Your task to perform on an android device: allow notifications from all sites in the chrome app Image 0: 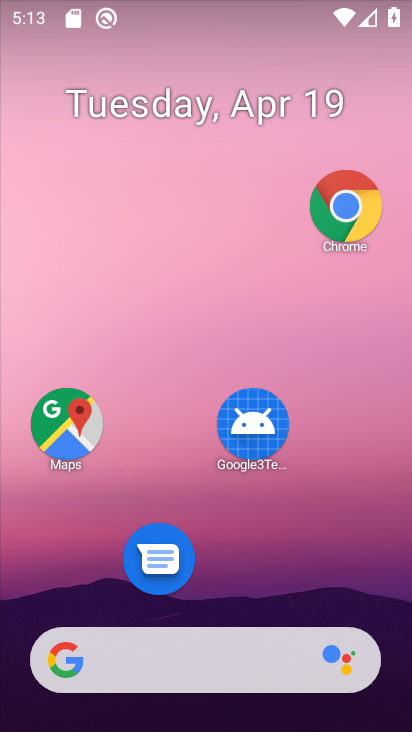
Step 0: drag from (268, 726) to (244, 167)
Your task to perform on an android device: allow notifications from all sites in the chrome app Image 1: 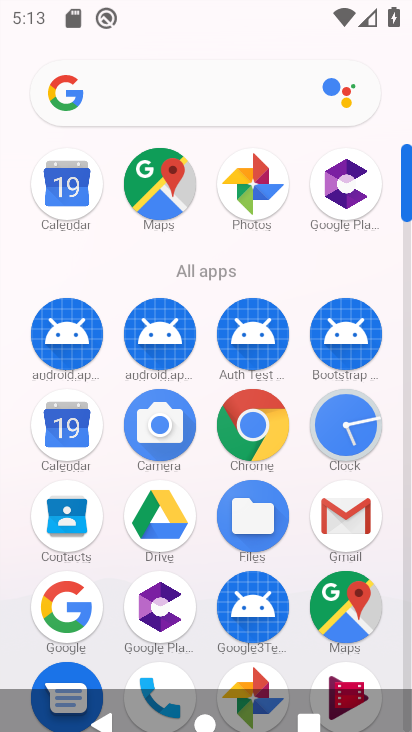
Step 1: click (245, 438)
Your task to perform on an android device: allow notifications from all sites in the chrome app Image 2: 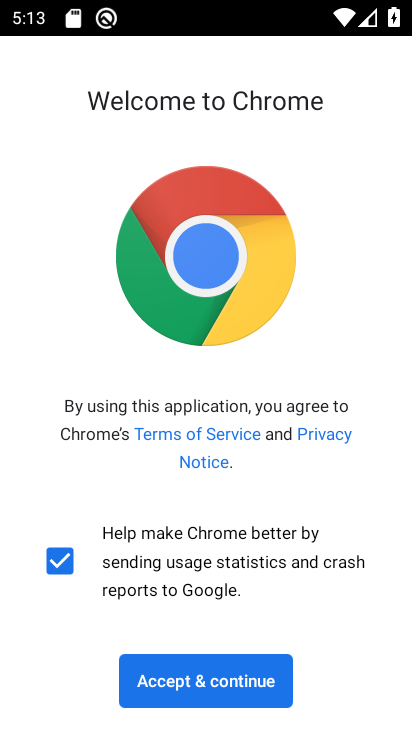
Step 2: click (230, 672)
Your task to perform on an android device: allow notifications from all sites in the chrome app Image 3: 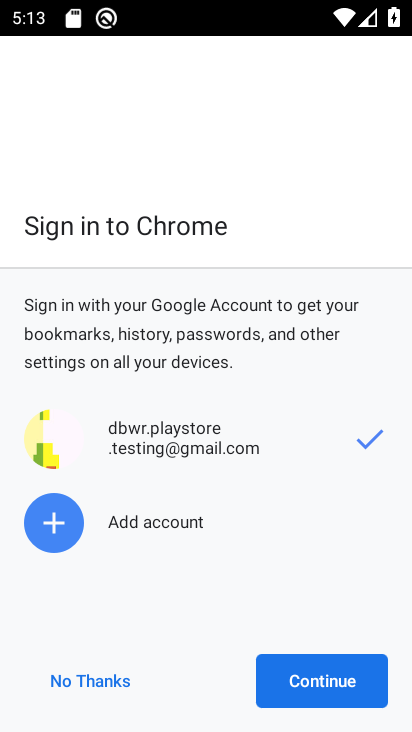
Step 3: click (327, 674)
Your task to perform on an android device: allow notifications from all sites in the chrome app Image 4: 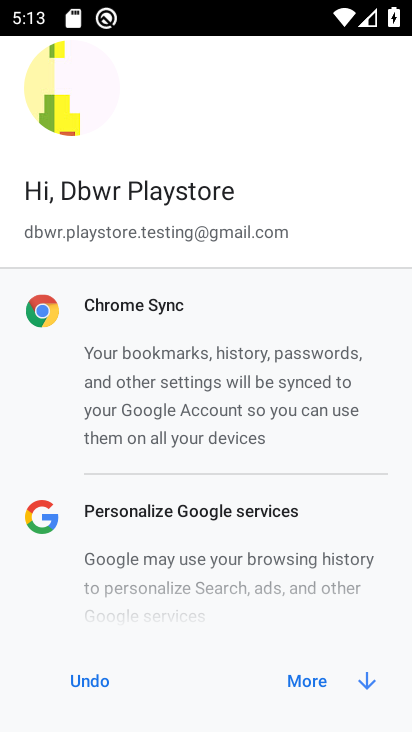
Step 4: click (317, 688)
Your task to perform on an android device: allow notifications from all sites in the chrome app Image 5: 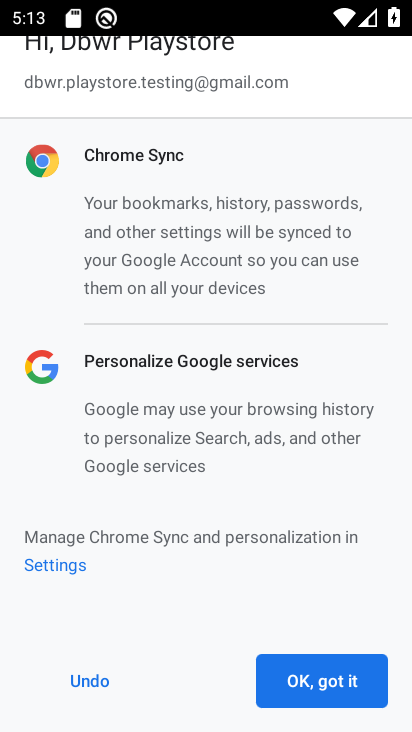
Step 5: click (317, 688)
Your task to perform on an android device: allow notifications from all sites in the chrome app Image 6: 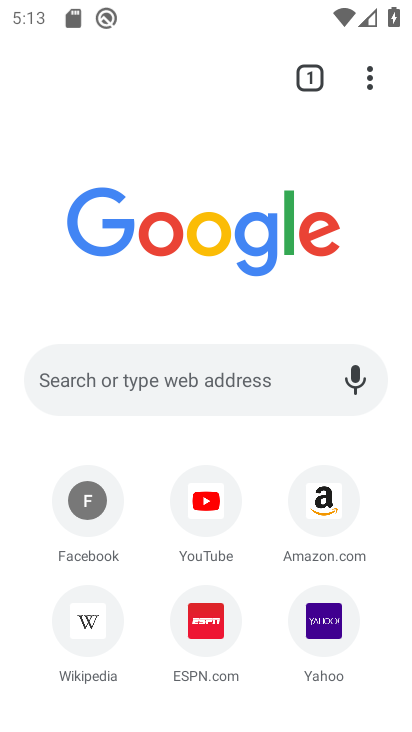
Step 6: click (367, 81)
Your task to perform on an android device: allow notifications from all sites in the chrome app Image 7: 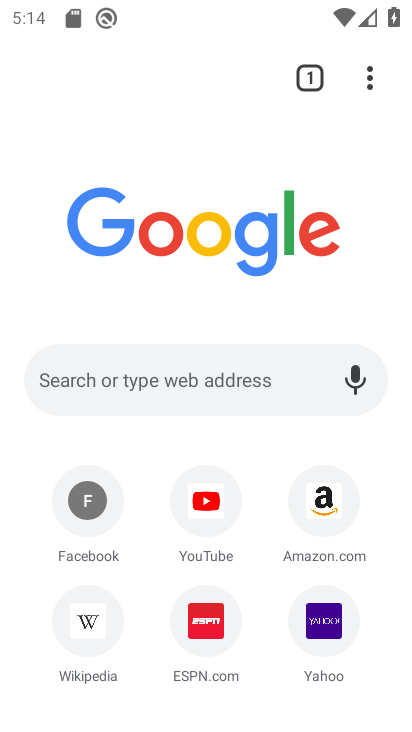
Step 7: click (363, 88)
Your task to perform on an android device: allow notifications from all sites in the chrome app Image 8: 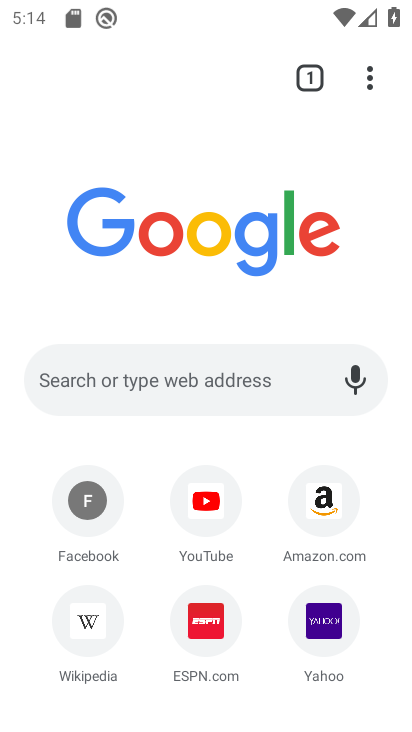
Step 8: click (376, 85)
Your task to perform on an android device: allow notifications from all sites in the chrome app Image 9: 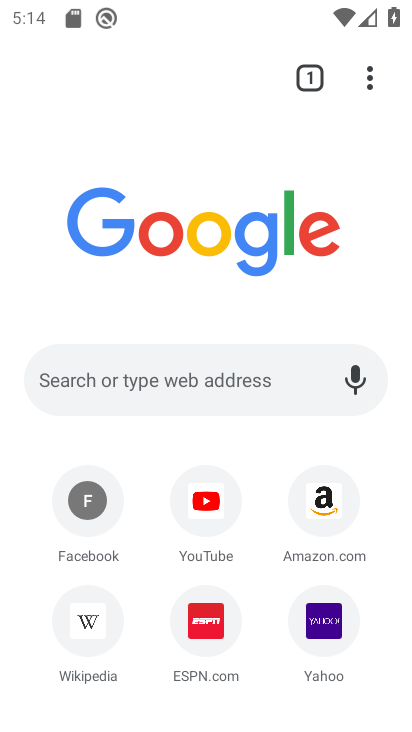
Step 9: click (376, 85)
Your task to perform on an android device: allow notifications from all sites in the chrome app Image 10: 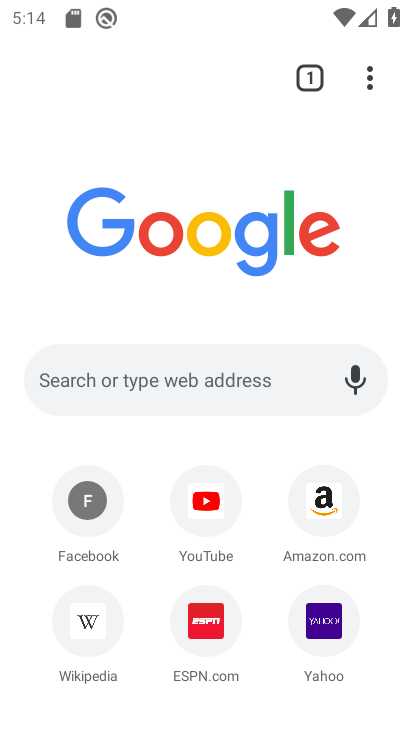
Step 10: click (377, 72)
Your task to perform on an android device: allow notifications from all sites in the chrome app Image 11: 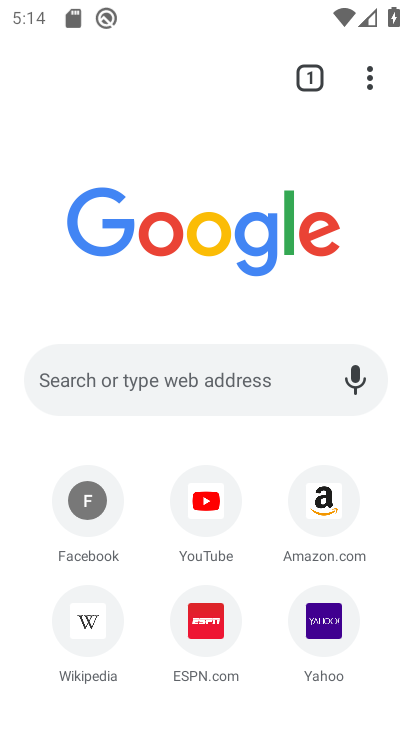
Step 11: drag from (366, 73) to (152, 623)
Your task to perform on an android device: allow notifications from all sites in the chrome app Image 12: 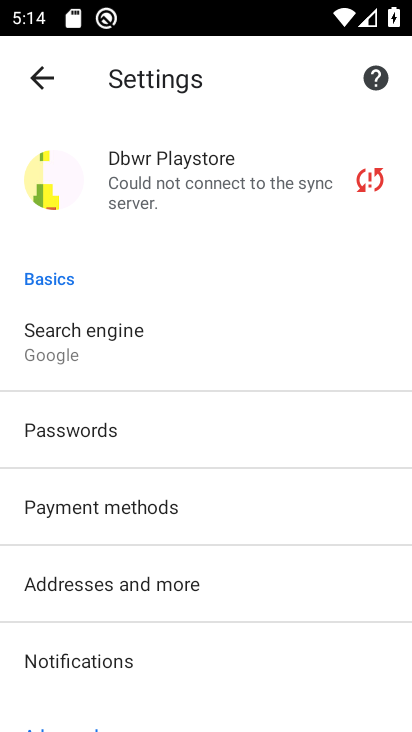
Step 12: click (171, 663)
Your task to perform on an android device: allow notifications from all sites in the chrome app Image 13: 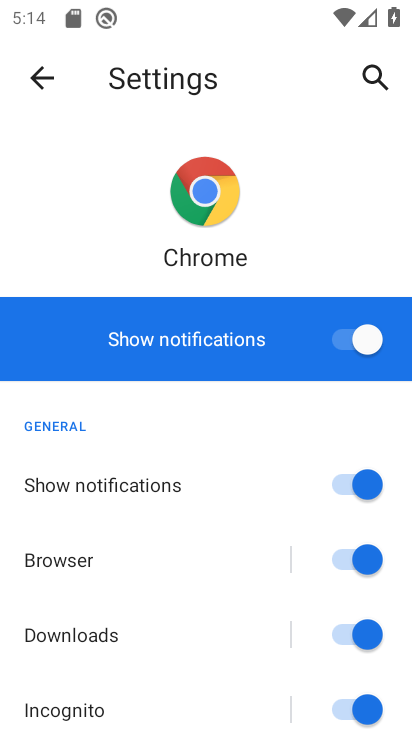
Step 13: drag from (224, 714) to (223, 392)
Your task to perform on an android device: allow notifications from all sites in the chrome app Image 14: 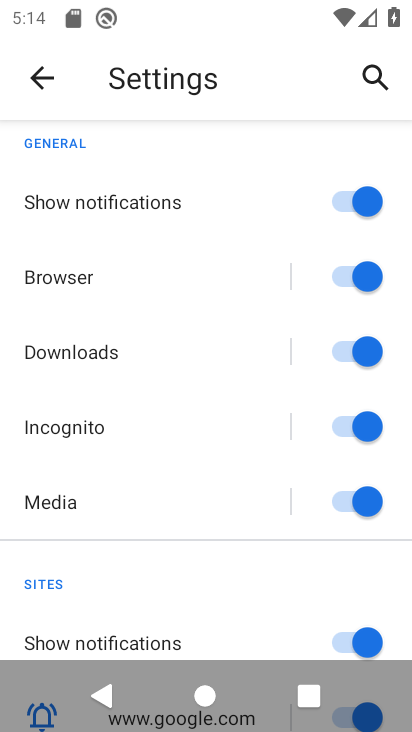
Step 14: drag from (230, 605) to (274, 349)
Your task to perform on an android device: allow notifications from all sites in the chrome app Image 15: 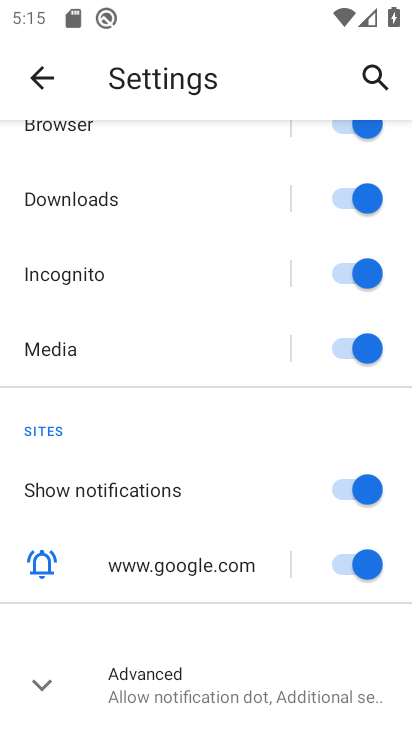
Step 15: click (41, 675)
Your task to perform on an android device: allow notifications from all sites in the chrome app Image 16: 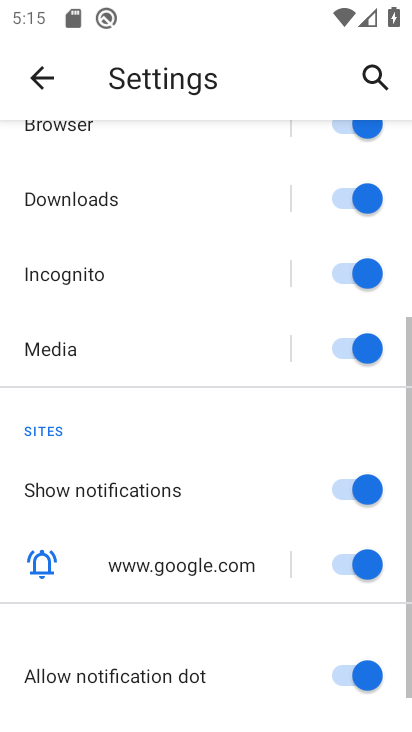
Step 16: task complete